Your task to perform on an android device: change alarm snooze length Image 0: 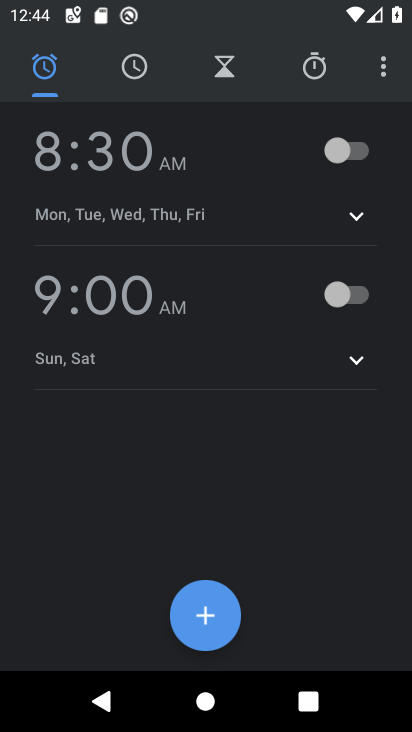
Step 0: click (380, 63)
Your task to perform on an android device: change alarm snooze length Image 1: 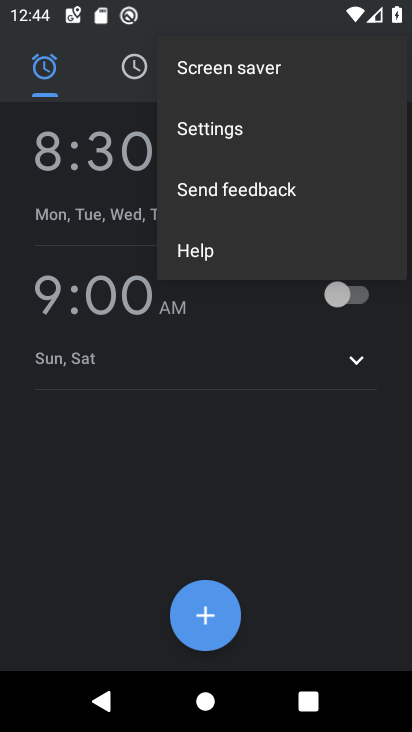
Step 1: click (261, 126)
Your task to perform on an android device: change alarm snooze length Image 2: 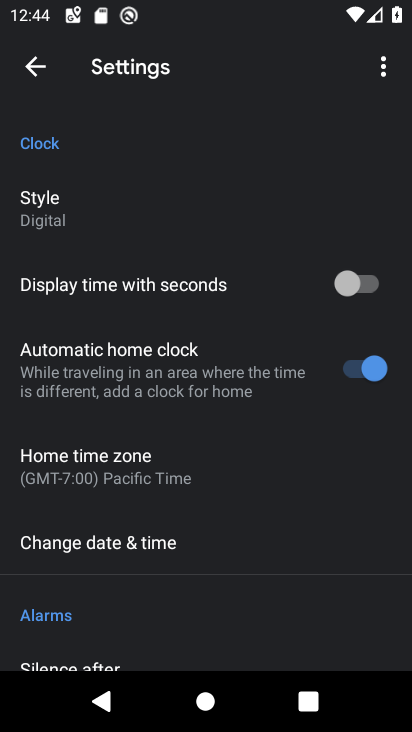
Step 2: drag from (227, 533) to (213, 133)
Your task to perform on an android device: change alarm snooze length Image 3: 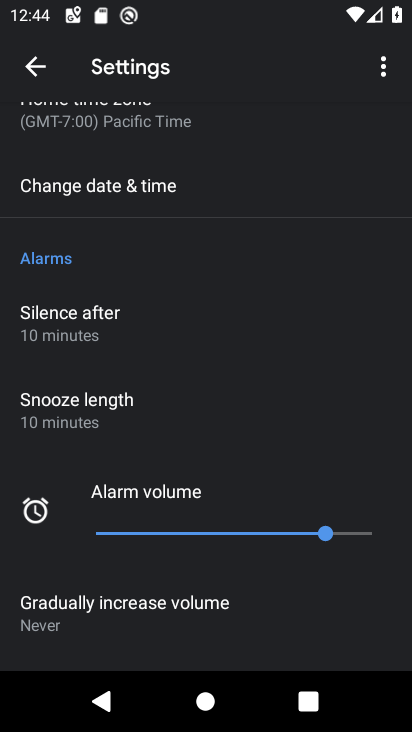
Step 3: click (121, 401)
Your task to perform on an android device: change alarm snooze length Image 4: 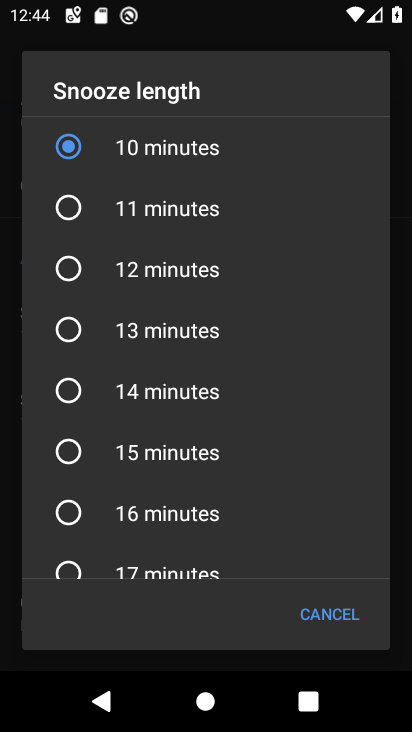
Step 4: click (69, 270)
Your task to perform on an android device: change alarm snooze length Image 5: 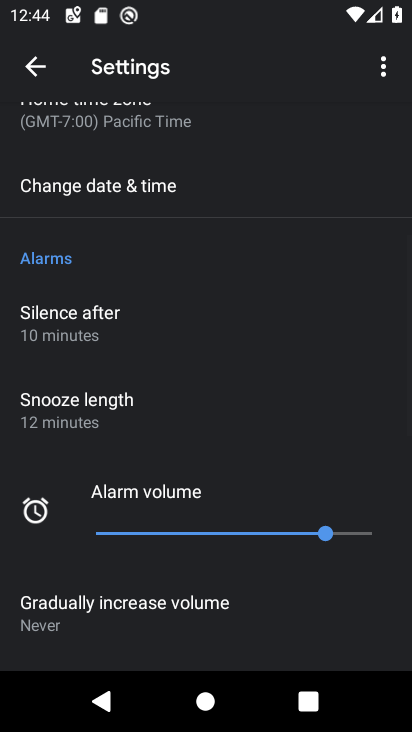
Step 5: task complete